Your task to perform on an android device: Open maps Image 0: 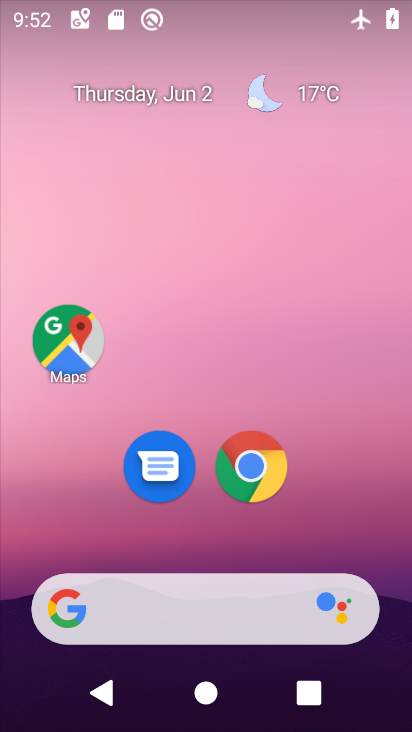
Step 0: click (79, 338)
Your task to perform on an android device: Open maps Image 1: 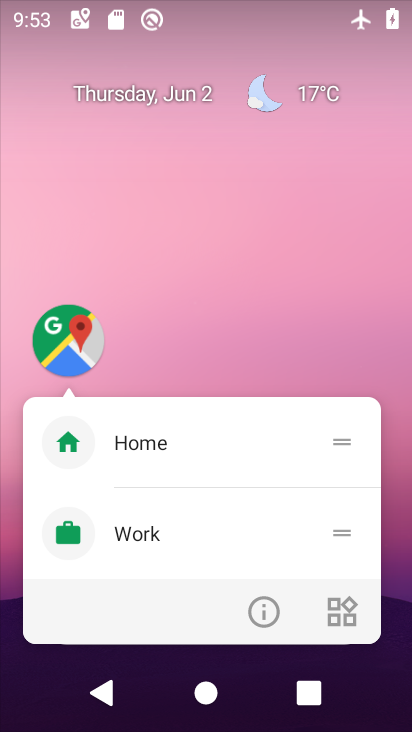
Step 1: click (80, 333)
Your task to perform on an android device: Open maps Image 2: 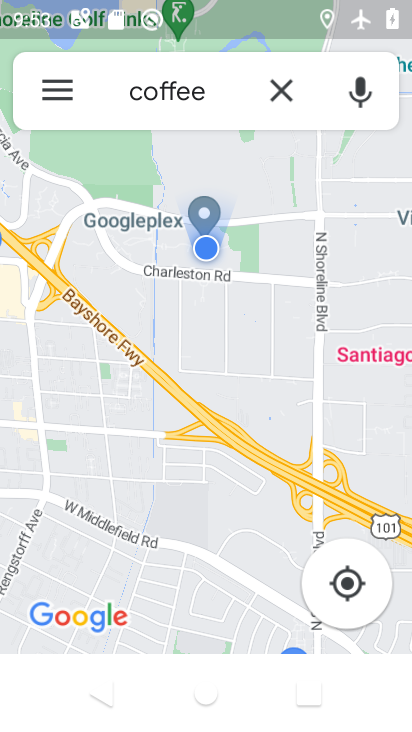
Step 2: task complete